Your task to perform on an android device: Open Chrome and go to settings Image 0: 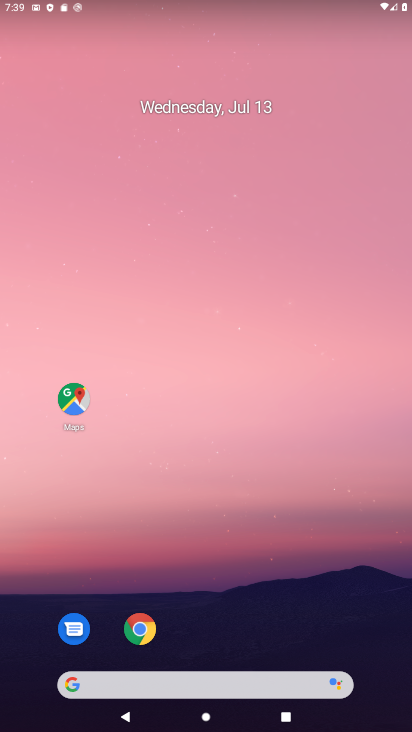
Step 0: click (142, 626)
Your task to perform on an android device: Open Chrome and go to settings Image 1: 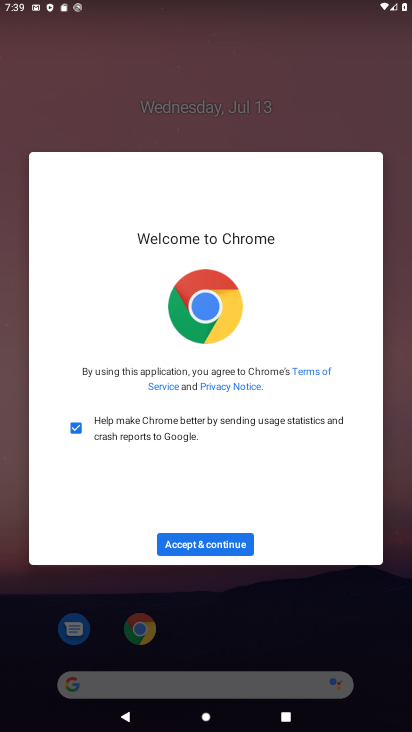
Step 1: click (196, 543)
Your task to perform on an android device: Open Chrome and go to settings Image 2: 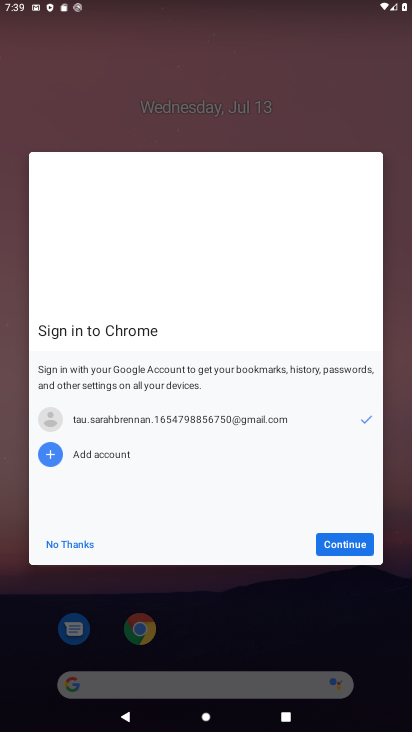
Step 2: click (327, 550)
Your task to perform on an android device: Open Chrome and go to settings Image 3: 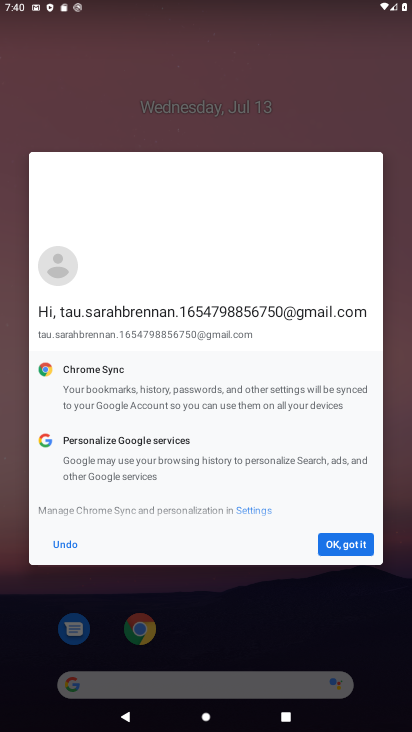
Step 3: click (327, 550)
Your task to perform on an android device: Open Chrome and go to settings Image 4: 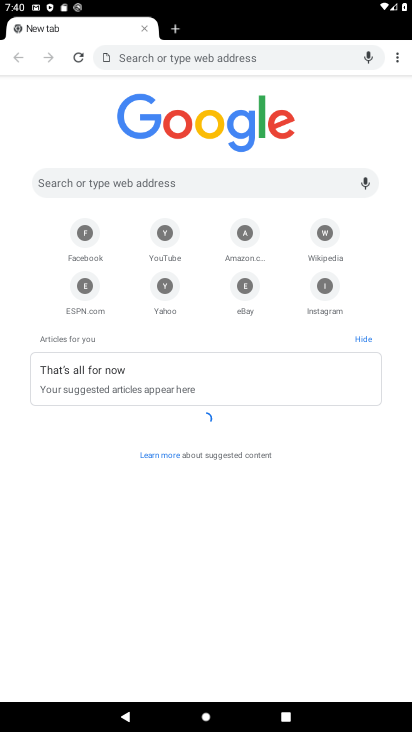
Step 4: click (397, 61)
Your task to perform on an android device: Open Chrome and go to settings Image 5: 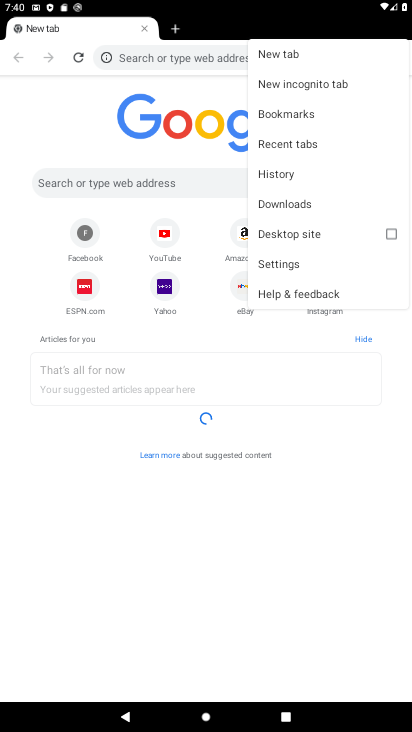
Step 5: click (288, 265)
Your task to perform on an android device: Open Chrome and go to settings Image 6: 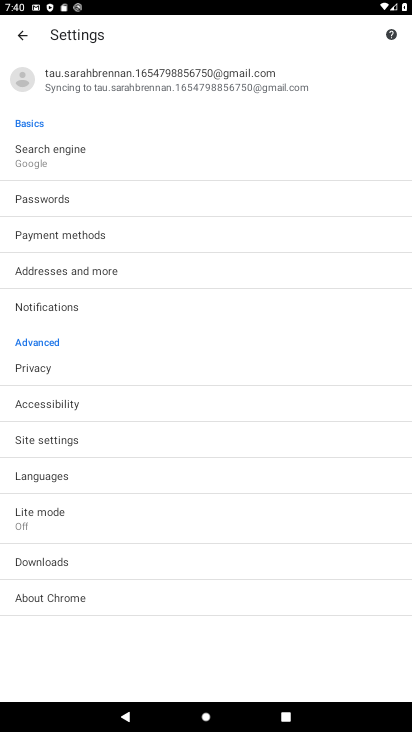
Step 6: task complete